Your task to perform on an android device: turn off location history Image 0: 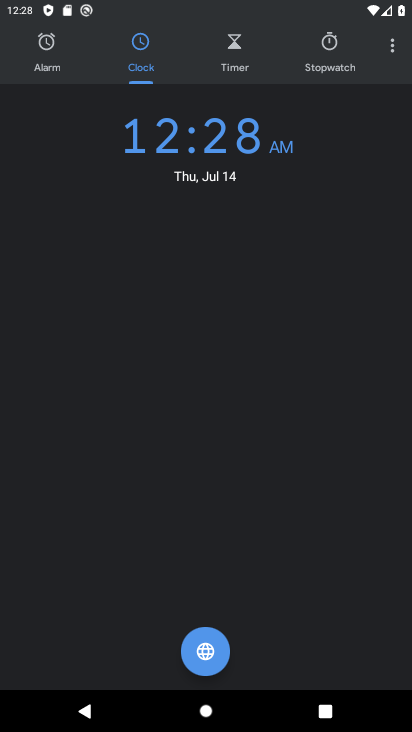
Step 0: press home button
Your task to perform on an android device: turn off location history Image 1: 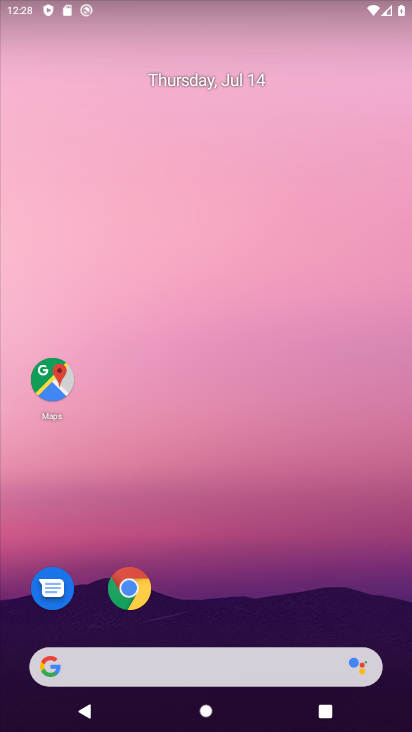
Step 1: drag from (280, 563) to (282, 346)
Your task to perform on an android device: turn off location history Image 2: 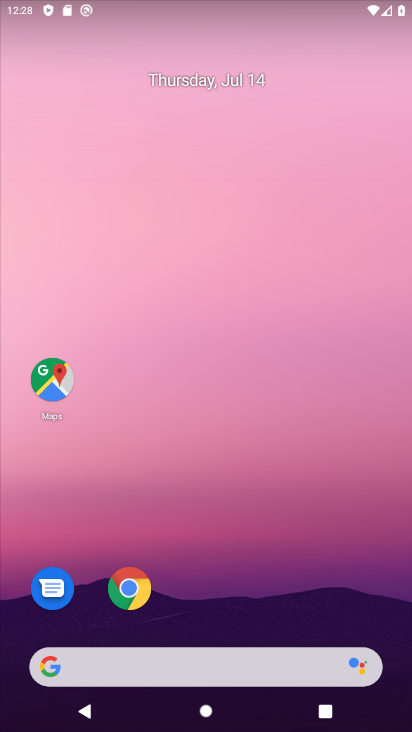
Step 2: drag from (252, 622) to (253, 237)
Your task to perform on an android device: turn off location history Image 3: 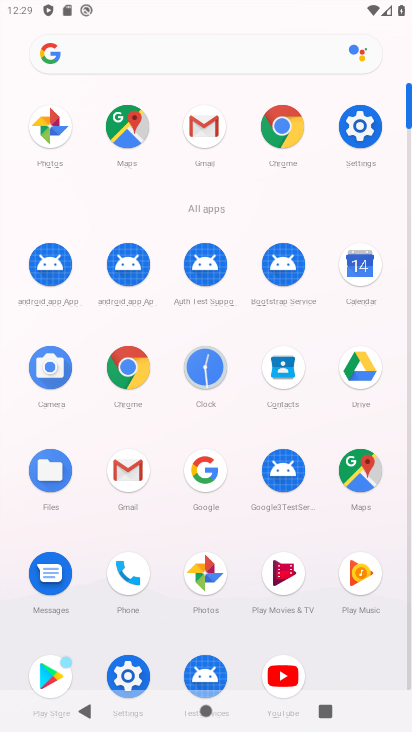
Step 3: click (353, 122)
Your task to perform on an android device: turn off location history Image 4: 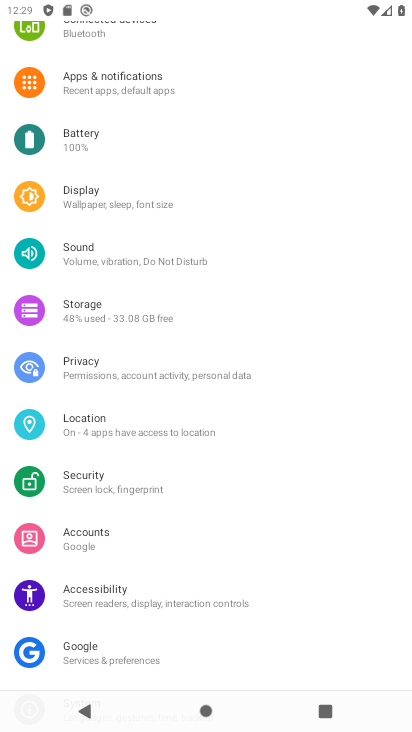
Step 4: click (104, 414)
Your task to perform on an android device: turn off location history Image 5: 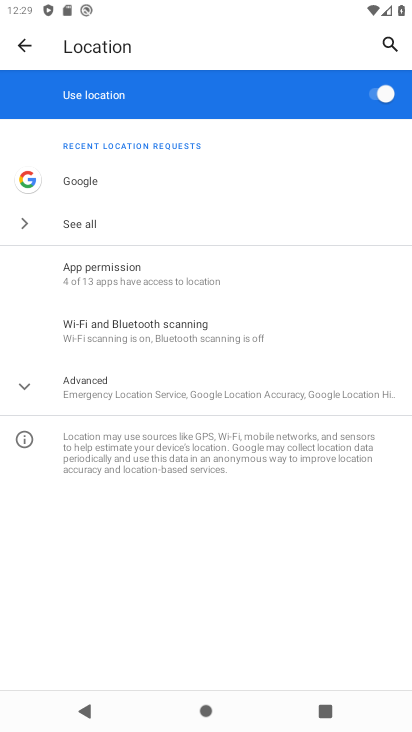
Step 5: click (158, 393)
Your task to perform on an android device: turn off location history Image 6: 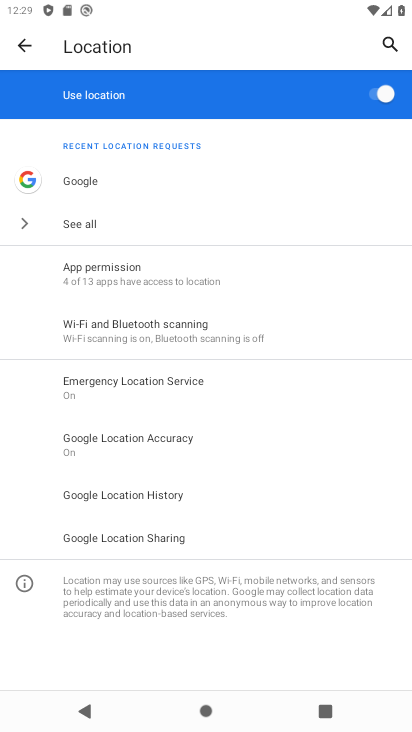
Step 6: click (157, 498)
Your task to perform on an android device: turn off location history Image 7: 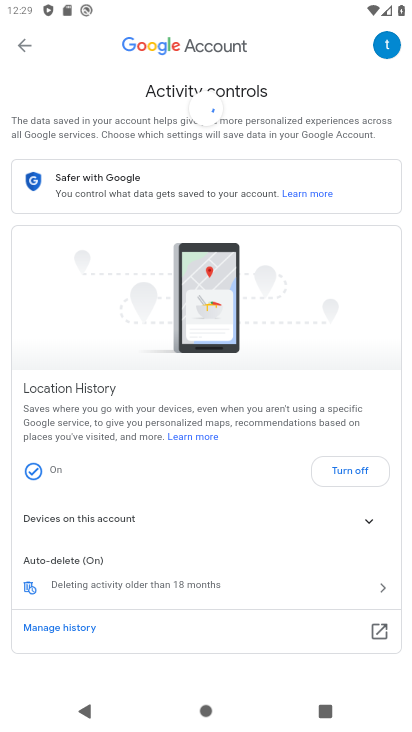
Step 7: click (346, 468)
Your task to perform on an android device: turn off location history Image 8: 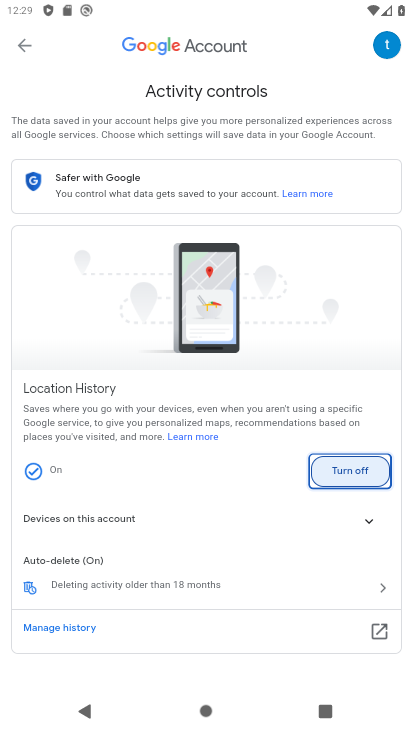
Step 8: task complete